Your task to perform on an android device: Open calendar and show me the second week of next month Image 0: 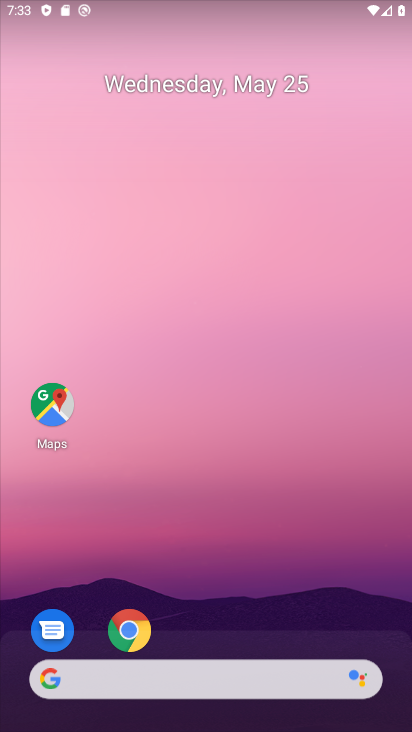
Step 0: drag from (214, 682) to (235, 219)
Your task to perform on an android device: Open calendar and show me the second week of next month Image 1: 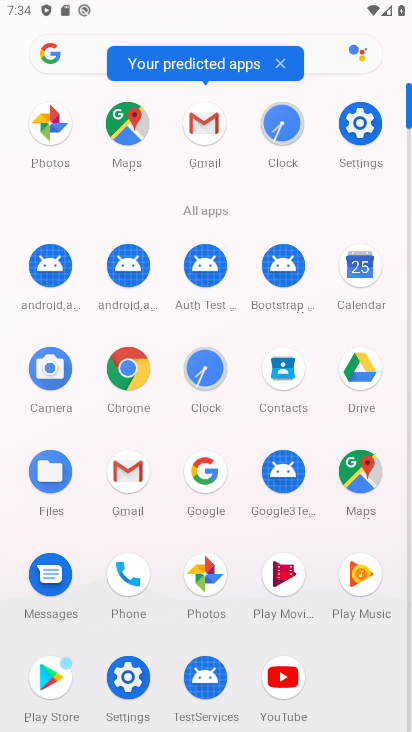
Step 1: click (365, 265)
Your task to perform on an android device: Open calendar and show me the second week of next month Image 2: 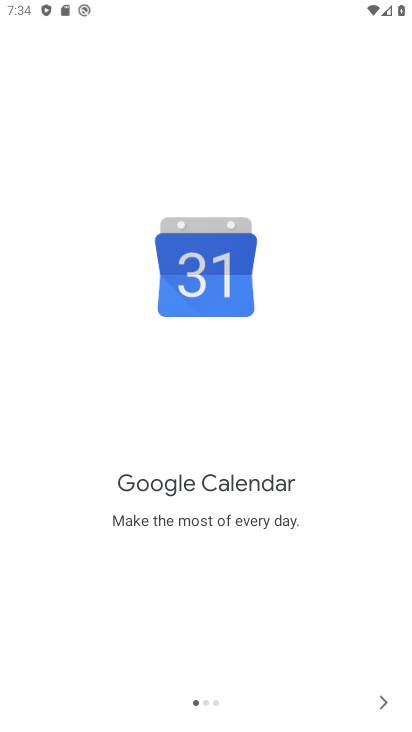
Step 2: click (385, 705)
Your task to perform on an android device: Open calendar and show me the second week of next month Image 3: 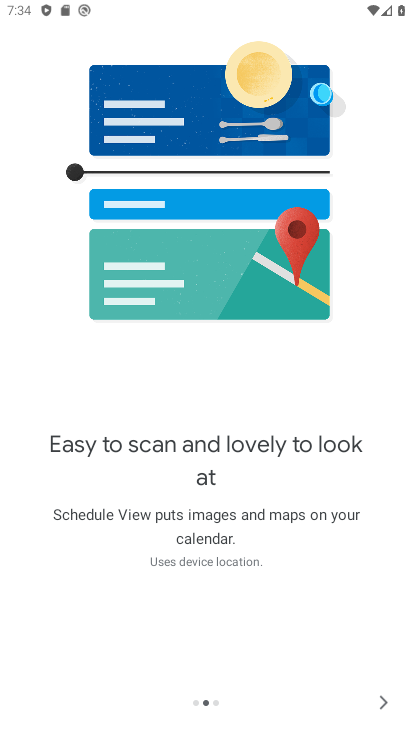
Step 3: click (385, 705)
Your task to perform on an android device: Open calendar and show me the second week of next month Image 4: 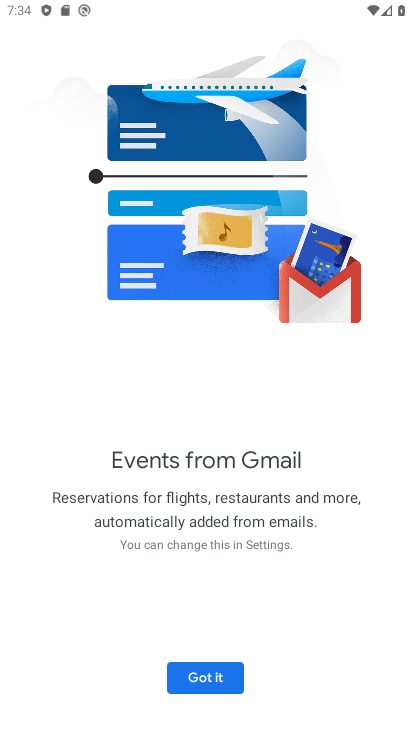
Step 4: click (226, 677)
Your task to perform on an android device: Open calendar and show me the second week of next month Image 5: 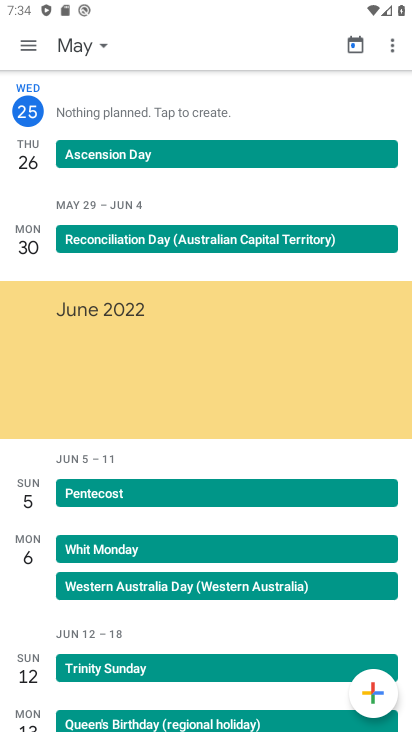
Step 5: click (82, 45)
Your task to perform on an android device: Open calendar and show me the second week of next month Image 6: 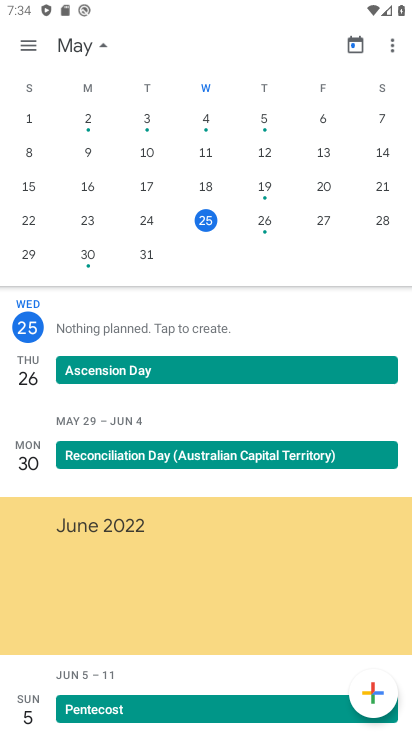
Step 6: drag from (346, 207) to (1, 233)
Your task to perform on an android device: Open calendar and show me the second week of next month Image 7: 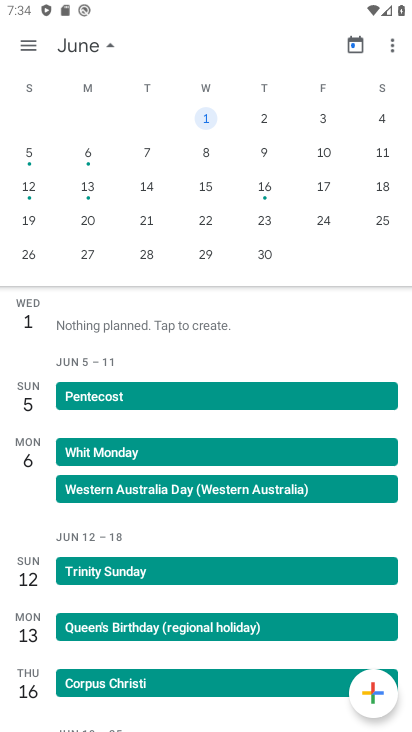
Step 7: click (32, 155)
Your task to perform on an android device: Open calendar and show me the second week of next month Image 8: 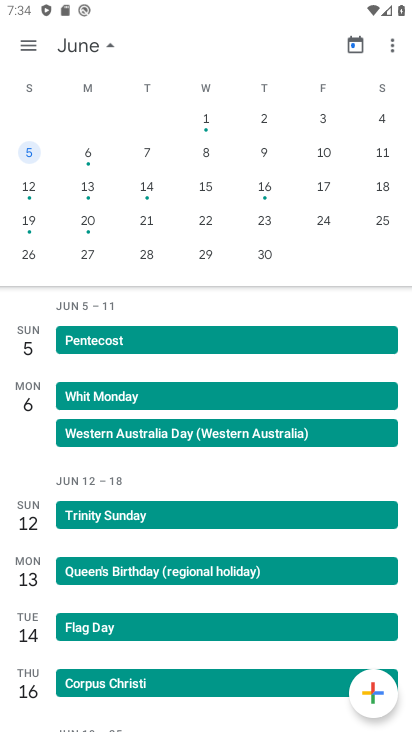
Step 8: task complete